Your task to perform on an android device: Open calendar and show me the first week of next month Image 0: 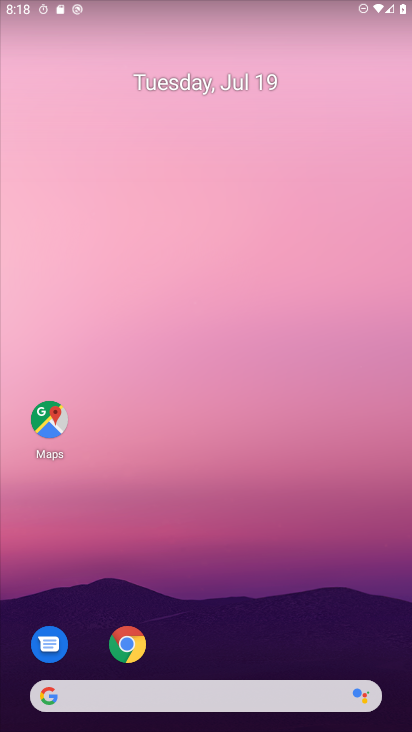
Step 0: drag from (114, 412) to (256, 85)
Your task to perform on an android device: Open calendar and show me the first week of next month Image 1: 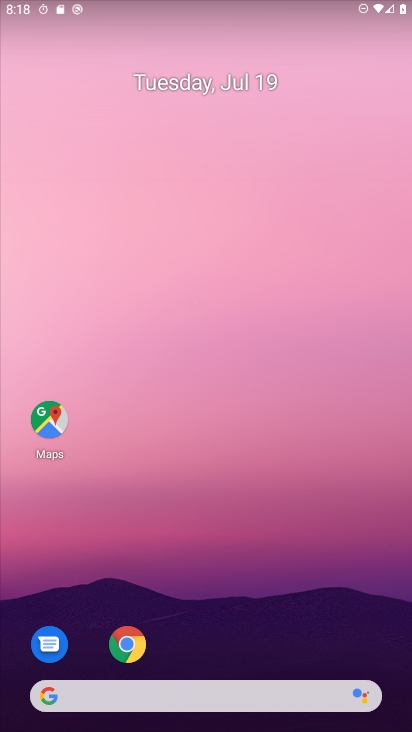
Step 1: drag from (6, 697) to (292, 43)
Your task to perform on an android device: Open calendar and show me the first week of next month Image 2: 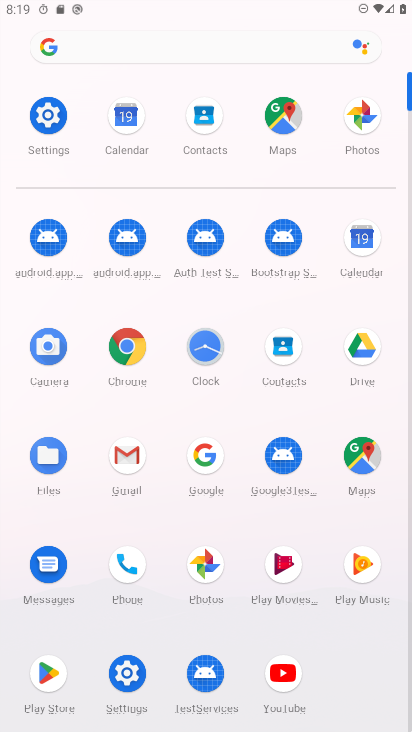
Step 2: click (351, 246)
Your task to perform on an android device: Open calendar and show me the first week of next month Image 3: 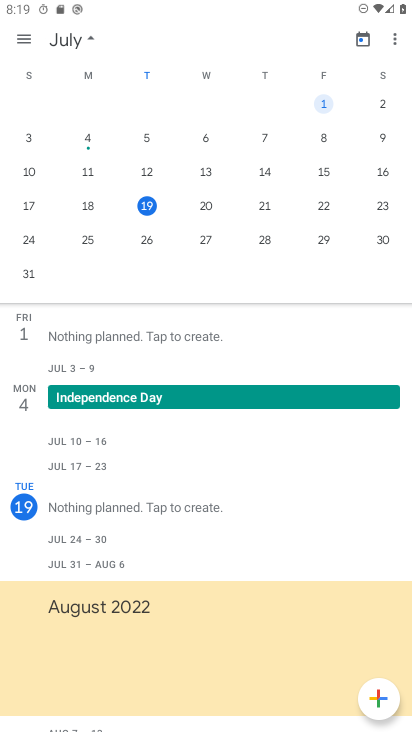
Step 3: task complete